Your task to perform on an android device: turn off location Image 0: 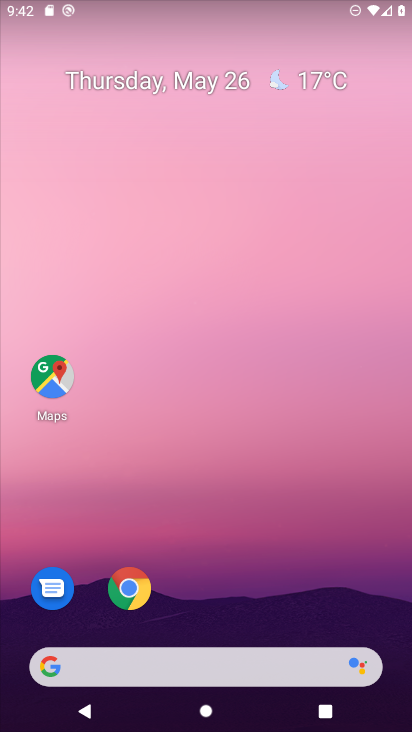
Step 0: drag from (366, 626) to (291, 21)
Your task to perform on an android device: turn off location Image 1: 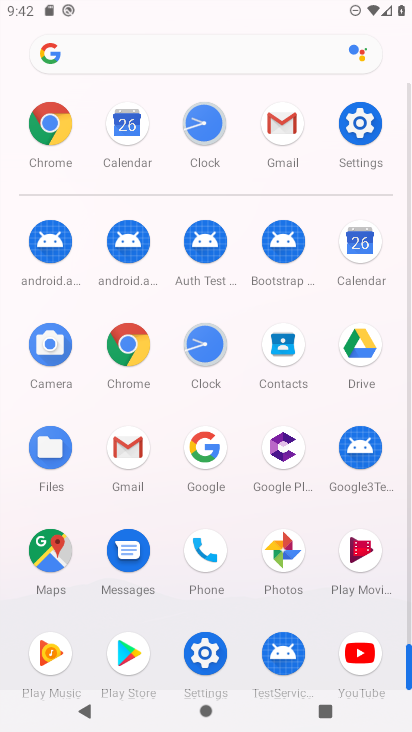
Step 1: click (204, 653)
Your task to perform on an android device: turn off location Image 2: 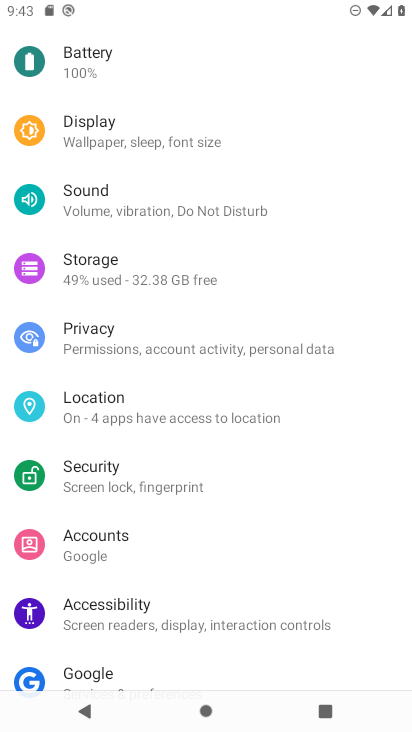
Step 2: click (92, 409)
Your task to perform on an android device: turn off location Image 3: 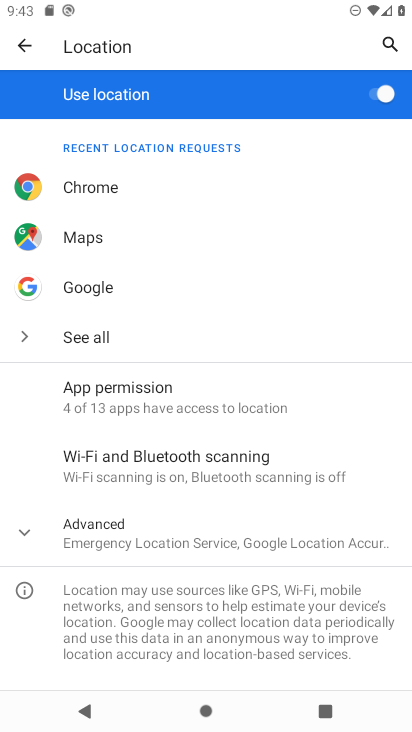
Step 3: click (370, 96)
Your task to perform on an android device: turn off location Image 4: 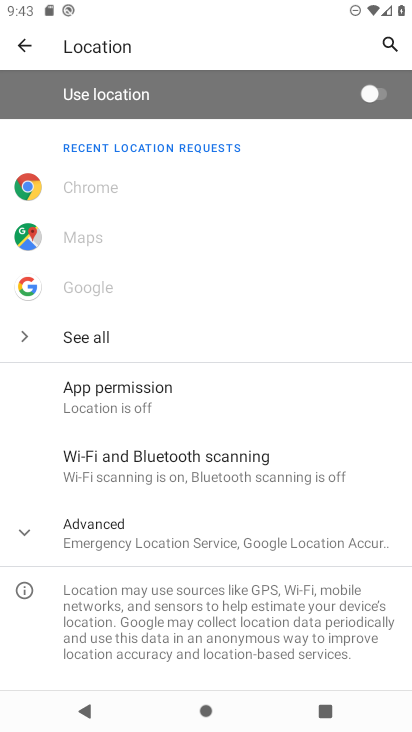
Step 4: task complete